Your task to perform on an android device: Go to Wikipedia Image 0: 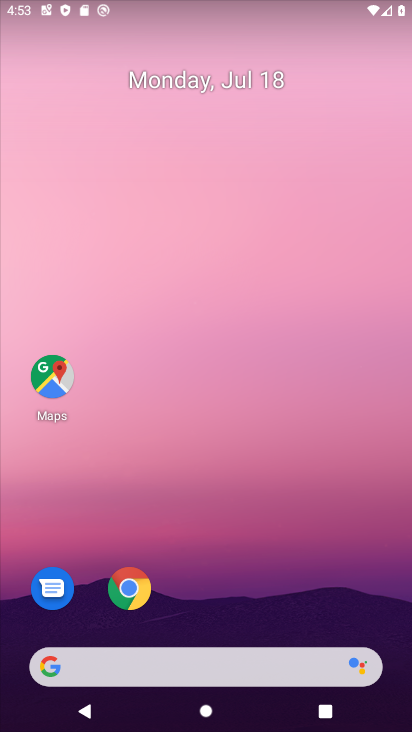
Step 0: click (142, 590)
Your task to perform on an android device: Go to Wikipedia Image 1: 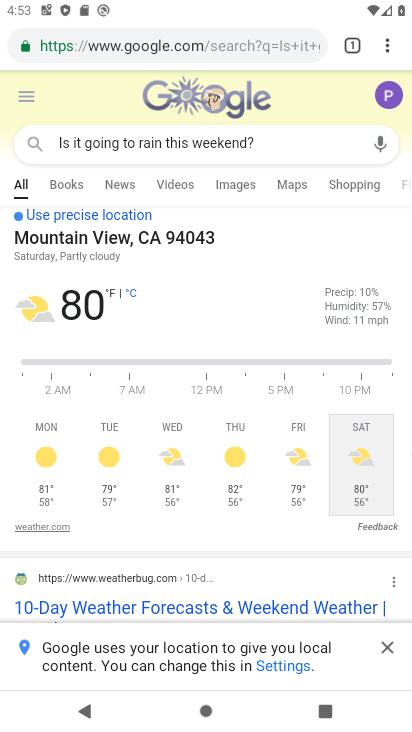
Step 1: click (355, 46)
Your task to perform on an android device: Go to Wikipedia Image 2: 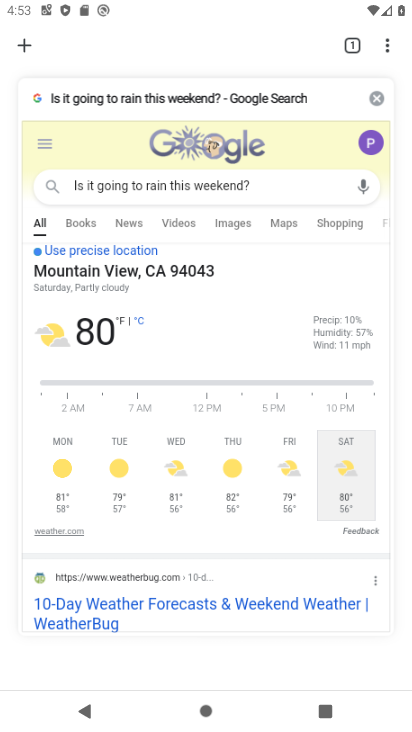
Step 2: click (25, 46)
Your task to perform on an android device: Go to Wikipedia Image 3: 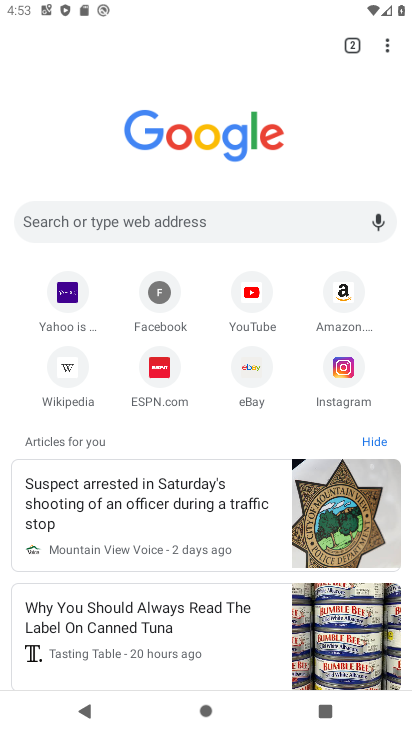
Step 3: click (71, 373)
Your task to perform on an android device: Go to Wikipedia Image 4: 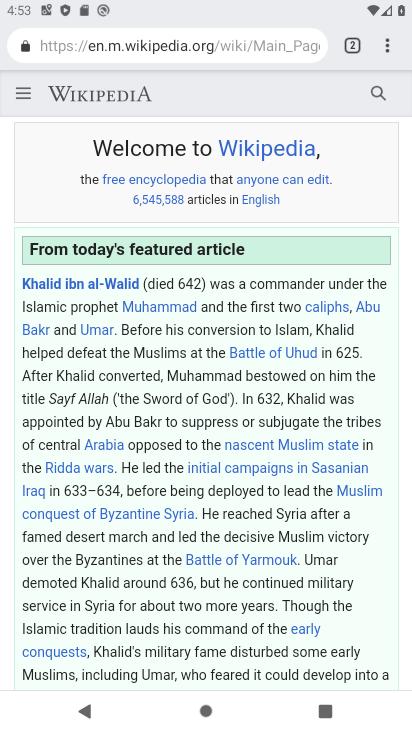
Step 4: task complete